Your task to perform on an android device: Open the map Image 0: 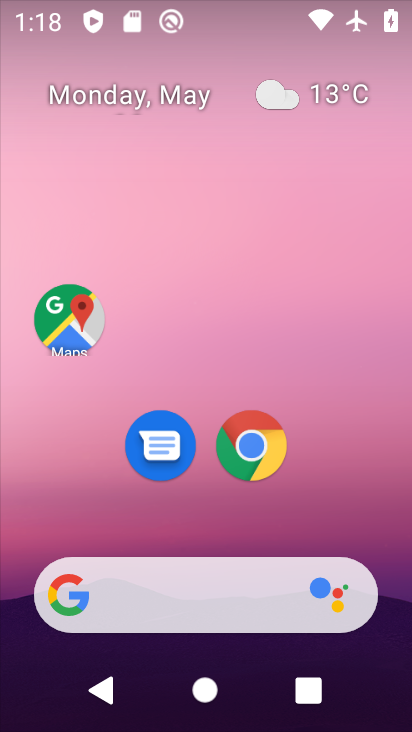
Step 0: drag from (407, 625) to (316, 115)
Your task to perform on an android device: Open the map Image 1: 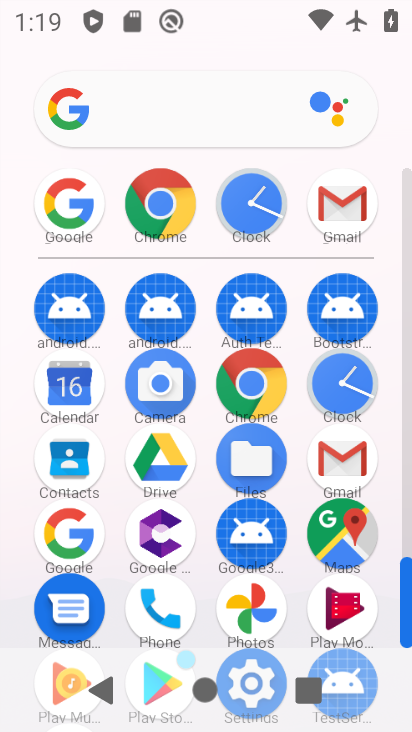
Step 1: click (337, 530)
Your task to perform on an android device: Open the map Image 2: 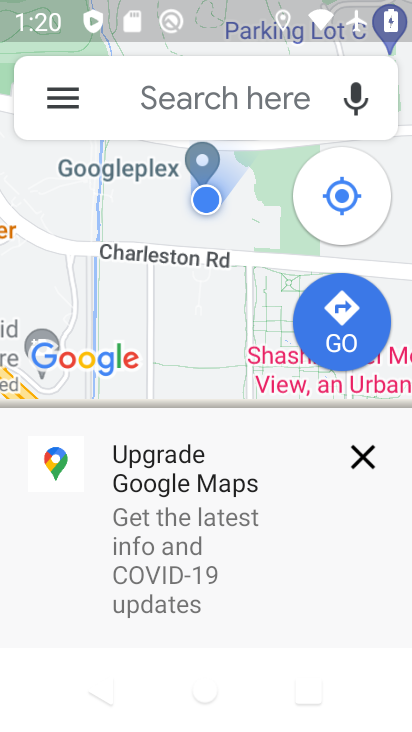
Step 2: task complete